Your task to perform on an android device: Open notification settings Image 0: 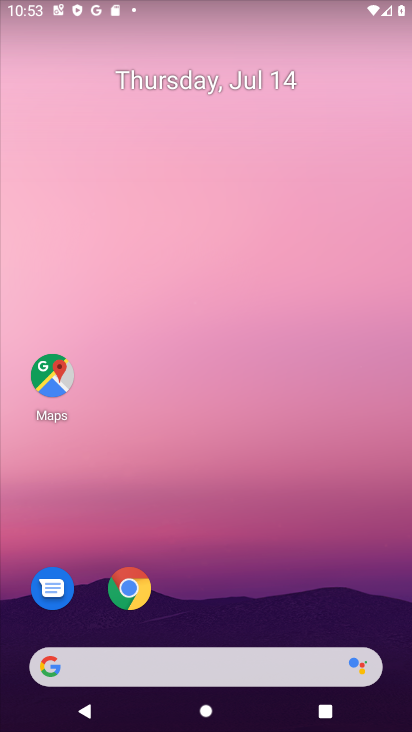
Step 0: press home button
Your task to perform on an android device: Open notification settings Image 1: 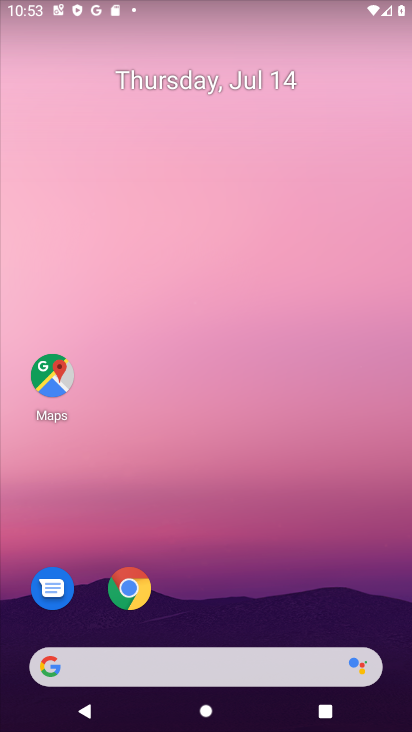
Step 1: drag from (310, 549) to (320, 120)
Your task to perform on an android device: Open notification settings Image 2: 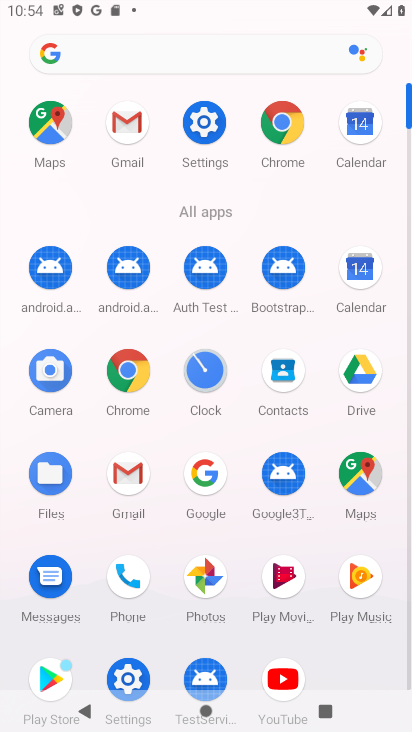
Step 2: click (124, 680)
Your task to perform on an android device: Open notification settings Image 3: 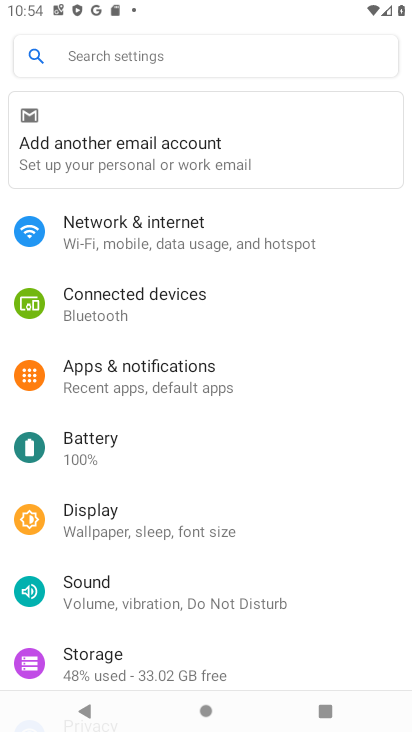
Step 3: click (62, 397)
Your task to perform on an android device: Open notification settings Image 4: 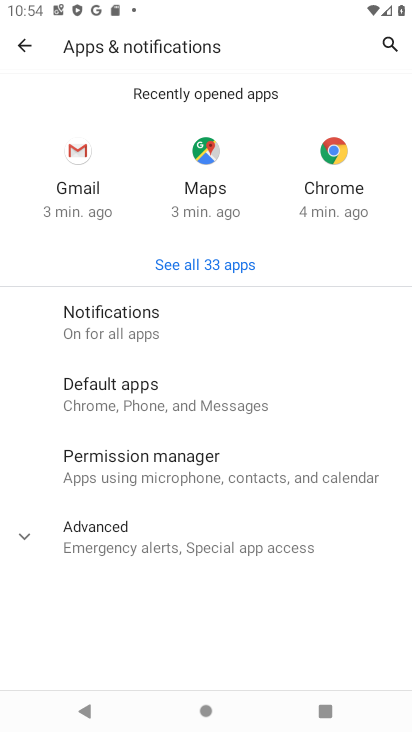
Step 4: click (63, 340)
Your task to perform on an android device: Open notification settings Image 5: 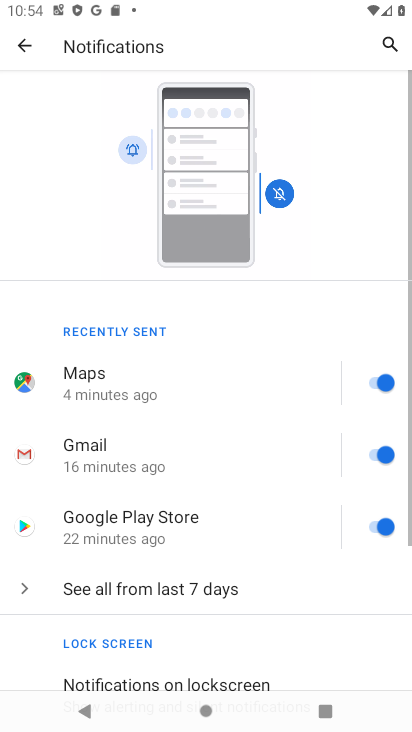
Step 5: task complete